Your task to perform on an android device: open wifi settings Image 0: 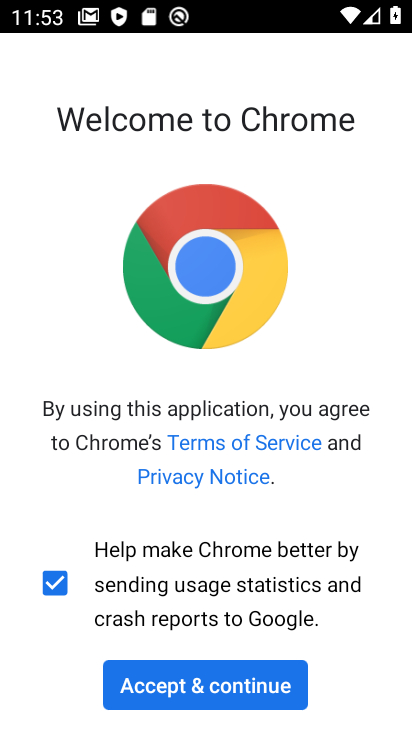
Step 0: drag from (175, 588) to (266, 136)
Your task to perform on an android device: open wifi settings Image 1: 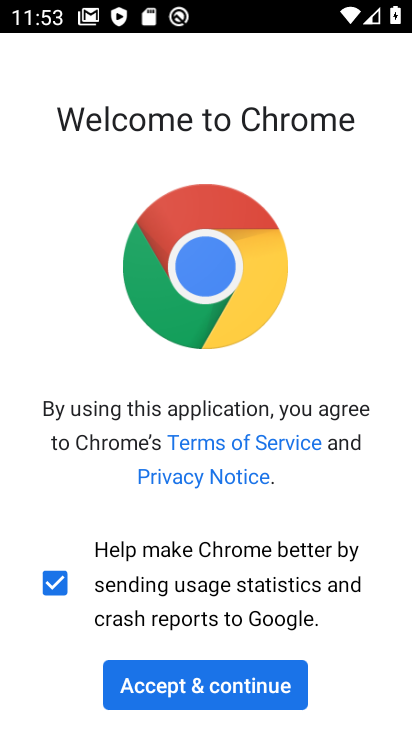
Step 1: drag from (151, 617) to (258, 252)
Your task to perform on an android device: open wifi settings Image 2: 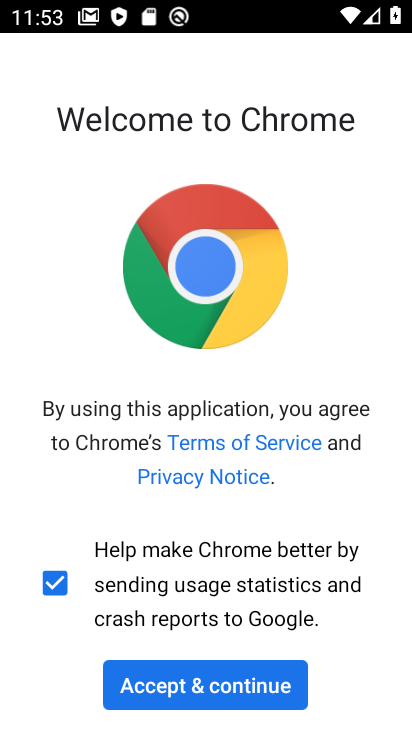
Step 2: press home button
Your task to perform on an android device: open wifi settings Image 3: 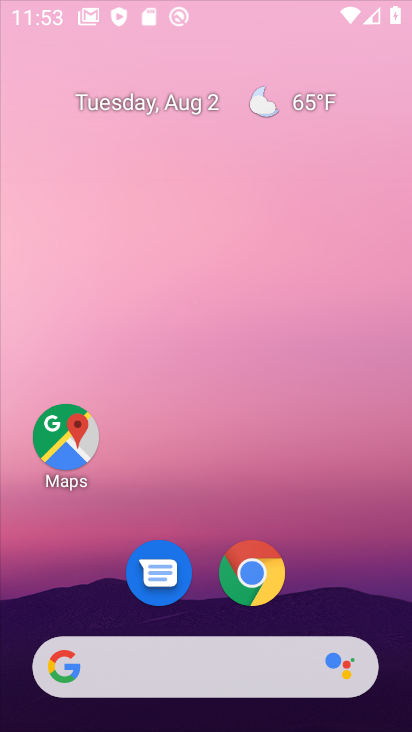
Step 3: drag from (228, 610) to (260, 96)
Your task to perform on an android device: open wifi settings Image 4: 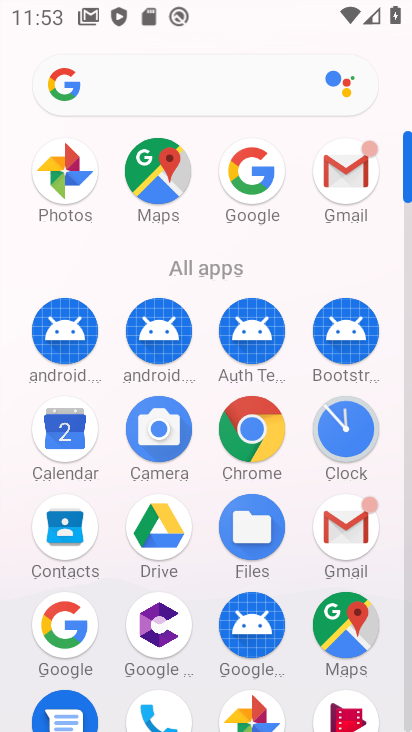
Step 4: drag from (195, 575) to (295, 29)
Your task to perform on an android device: open wifi settings Image 5: 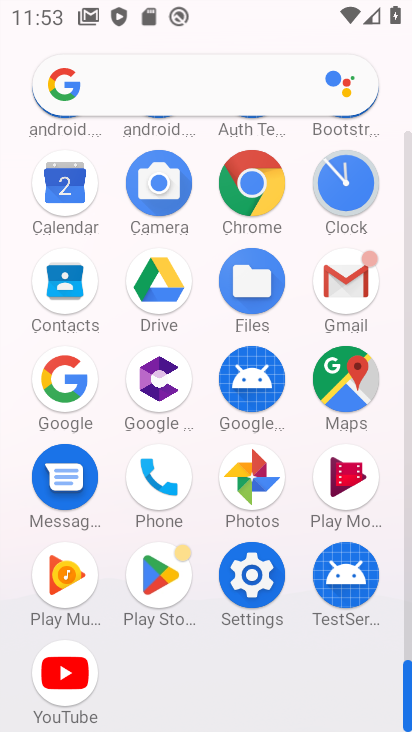
Step 5: click (255, 571)
Your task to perform on an android device: open wifi settings Image 6: 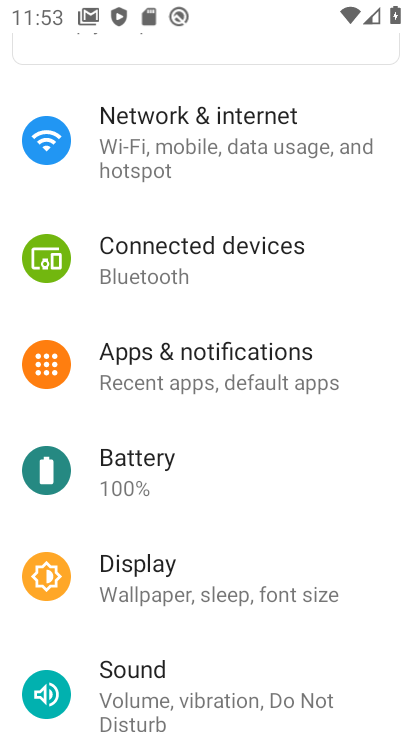
Step 6: drag from (239, 565) to (244, 714)
Your task to perform on an android device: open wifi settings Image 7: 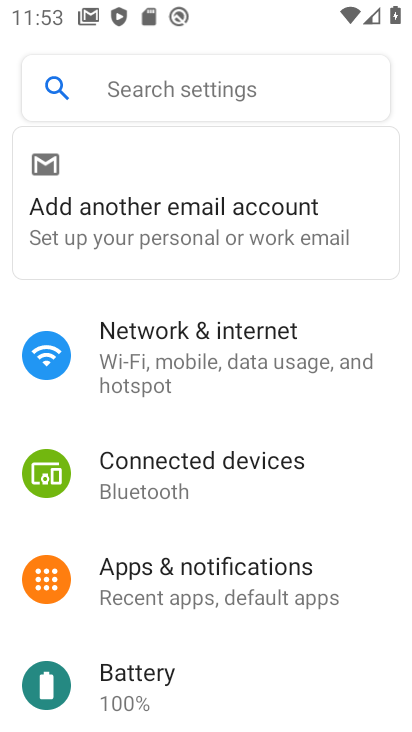
Step 7: click (148, 361)
Your task to perform on an android device: open wifi settings Image 8: 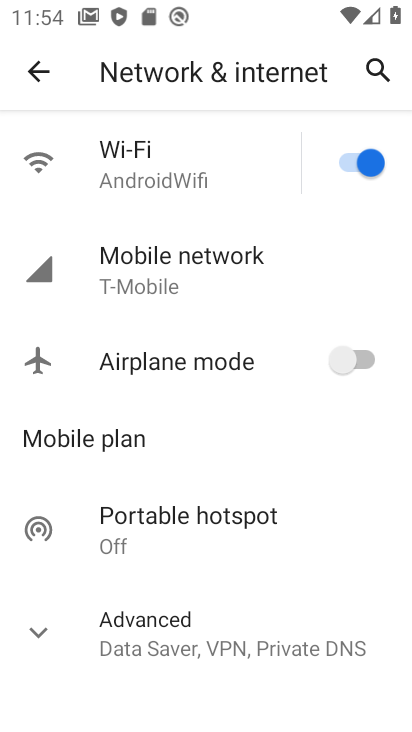
Step 8: drag from (180, 604) to (301, 265)
Your task to perform on an android device: open wifi settings Image 9: 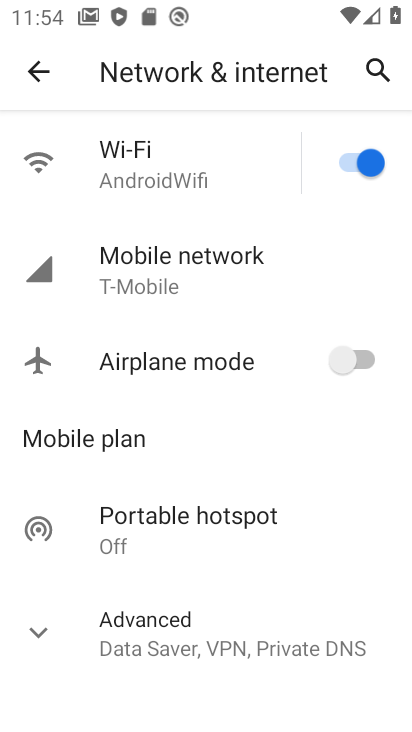
Step 9: click (183, 166)
Your task to perform on an android device: open wifi settings Image 10: 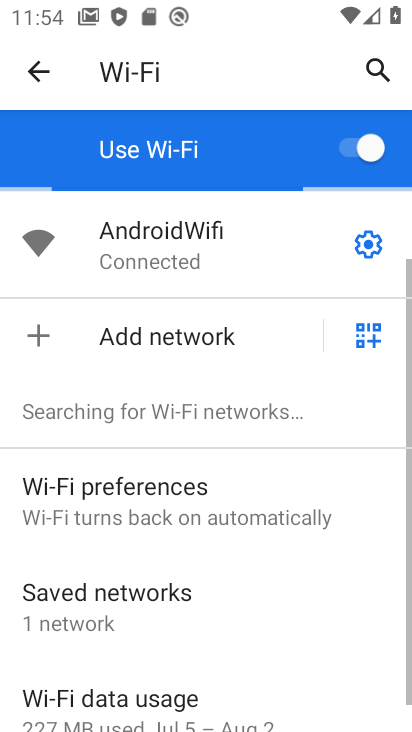
Step 10: click (370, 242)
Your task to perform on an android device: open wifi settings Image 11: 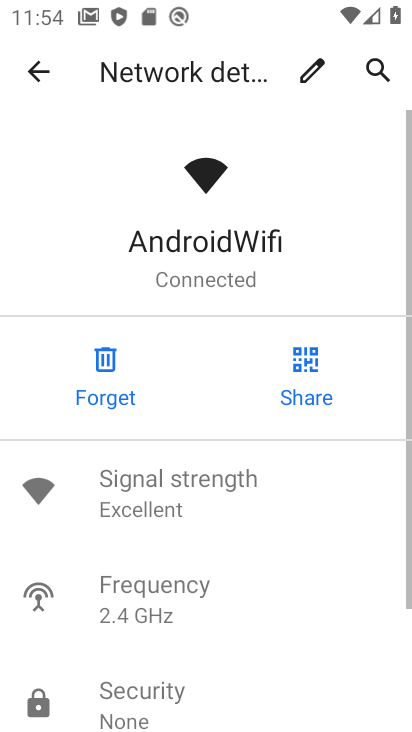
Step 11: task complete